Your task to perform on an android device: What's the weather today? Image 0: 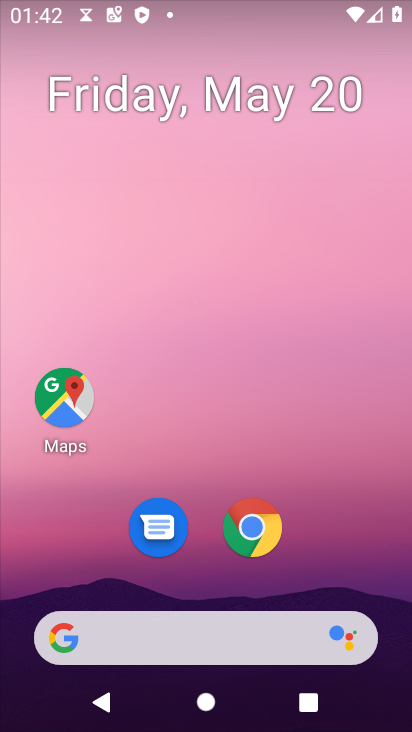
Step 0: press home button
Your task to perform on an android device: What's the weather today? Image 1: 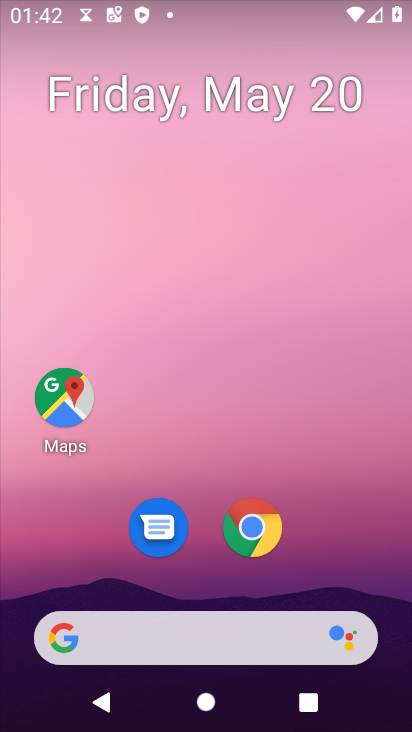
Step 1: click (73, 638)
Your task to perform on an android device: What's the weather today? Image 2: 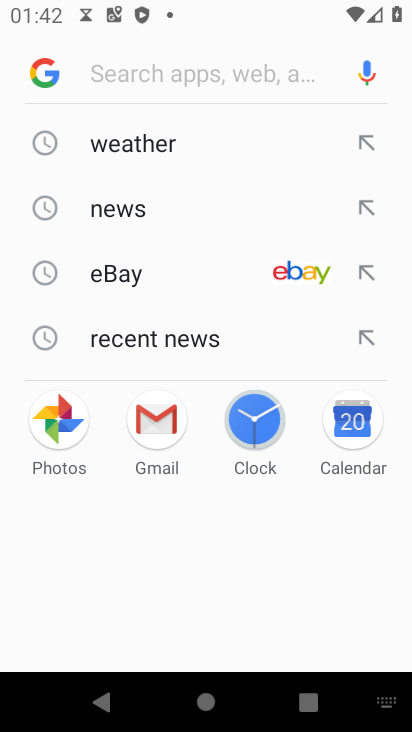
Step 2: click (162, 134)
Your task to perform on an android device: What's the weather today? Image 3: 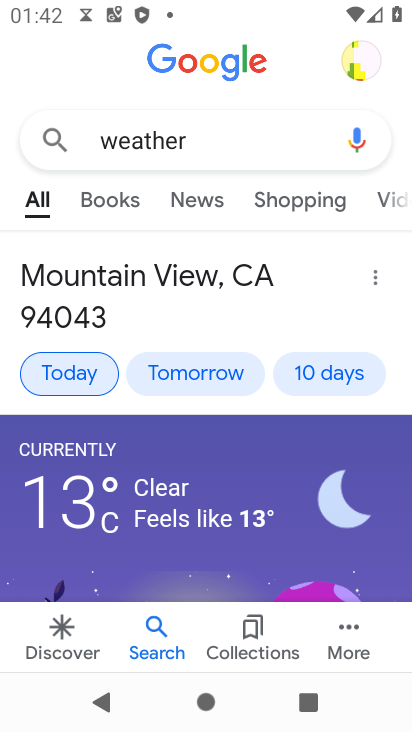
Step 3: task complete